Your task to perform on an android device: Go to Yahoo.com Image 0: 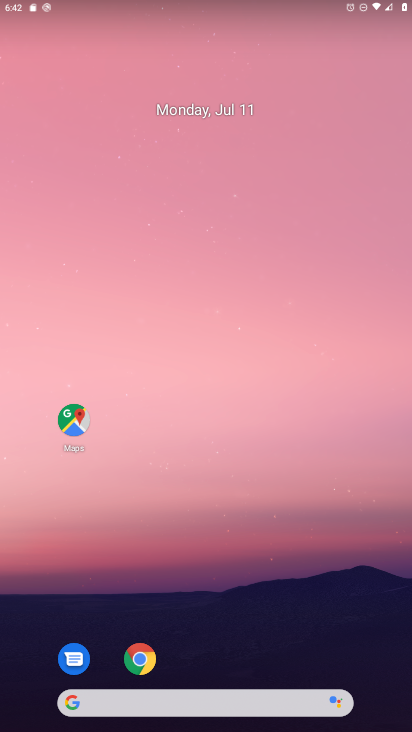
Step 0: click (140, 665)
Your task to perform on an android device: Go to Yahoo.com Image 1: 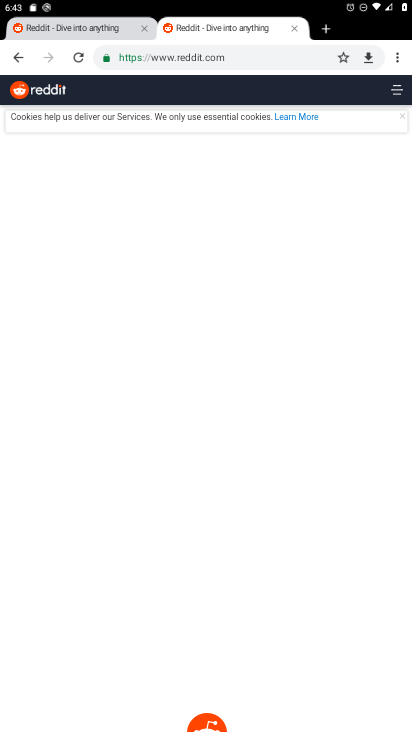
Step 1: click (233, 61)
Your task to perform on an android device: Go to Yahoo.com Image 2: 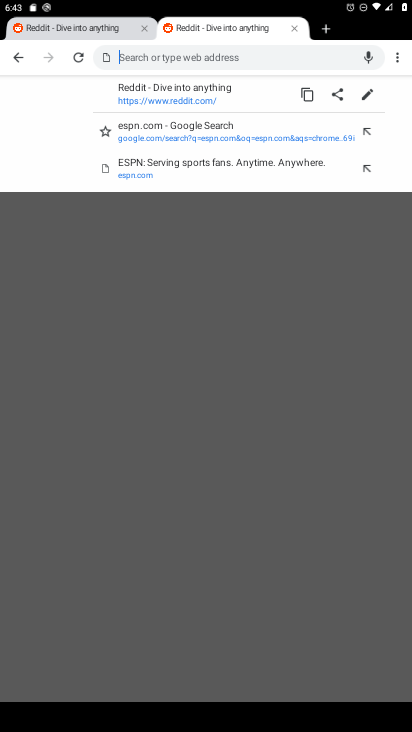
Step 2: type "Yahoo.com"
Your task to perform on an android device: Go to Yahoo.com Image 3: 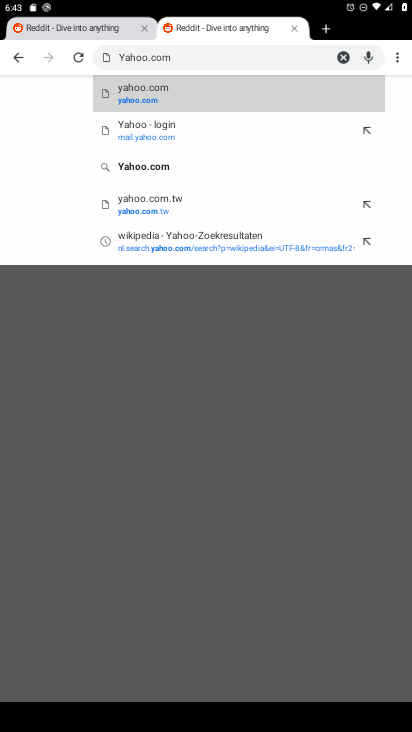
Step 3: click (132, 88)
Your task to perform on an android device: Go to Yahoo.com Image 4: 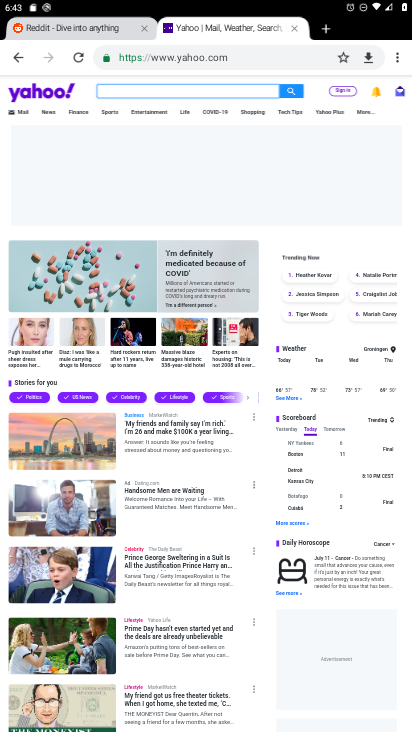
Step 4: task complete